Your task to perform on an android device: change the upload size in google photos Image 0: 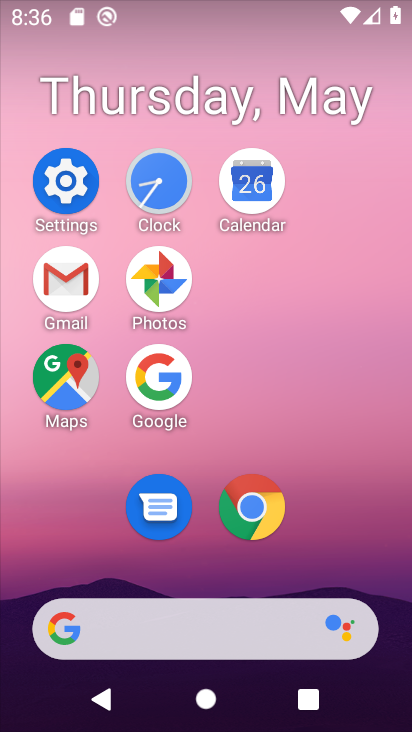
Step 0: click (162, 275)
Your task to perform on an android device: change the upload size in google photos Image 1: 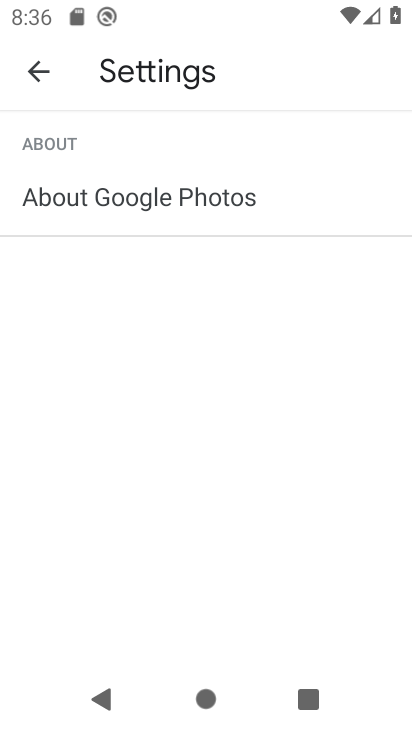
Step 1: click (44, 78)
Your task to perform on an android device: change the upload size in google photos Image 2: 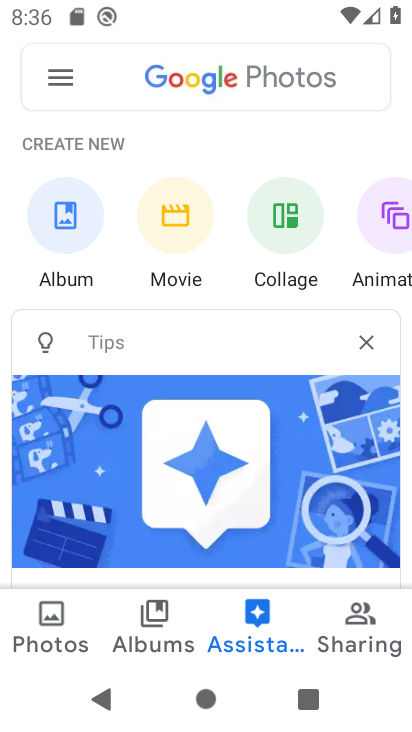
Step 2: click (44, 59)
Your task to perform on an android device: change the upload size in google photos Image 3: 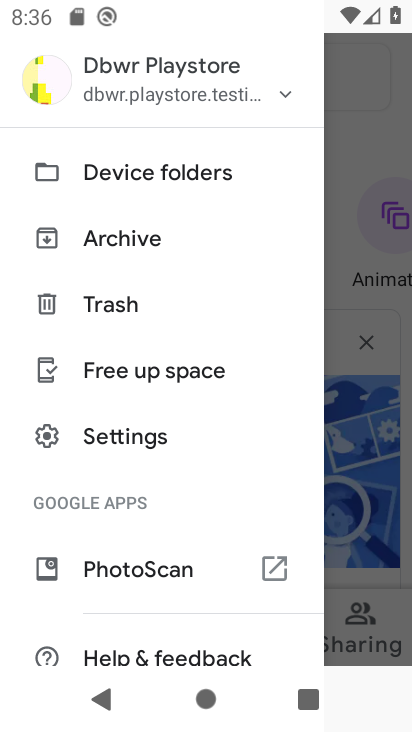
Step 3: click (182, 439)
Your task to perform on an android device: change the upload size in google photos Image 4: 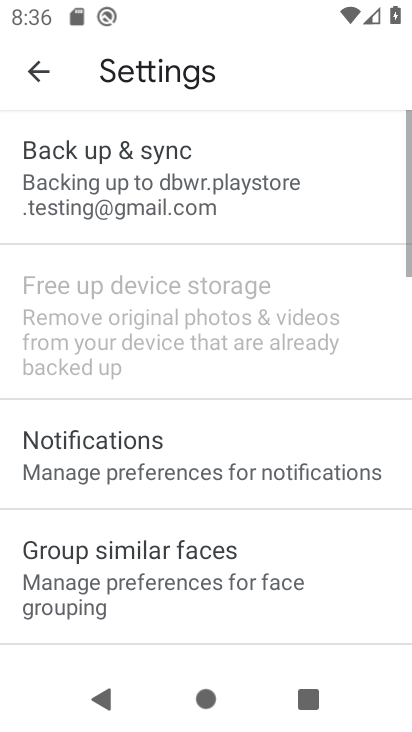
Step 4: click (181, 187)
Your task to perform on an android device: change the upload size in google photos Image 5: 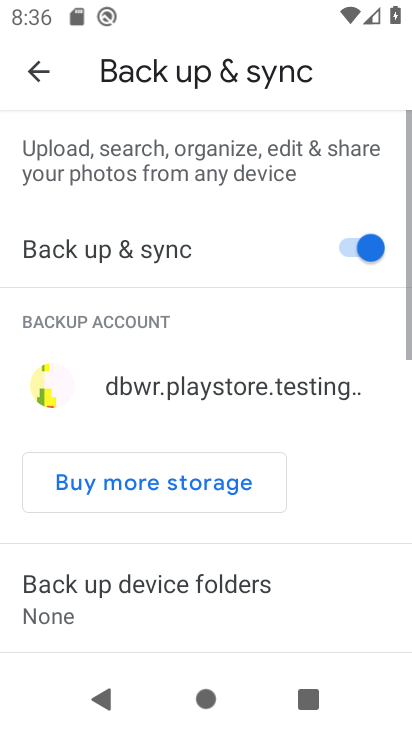
Step 5: drag from (259, 501) to (242, 178)
Your task to perform on an android device: change the upload size in google photos Image 6: 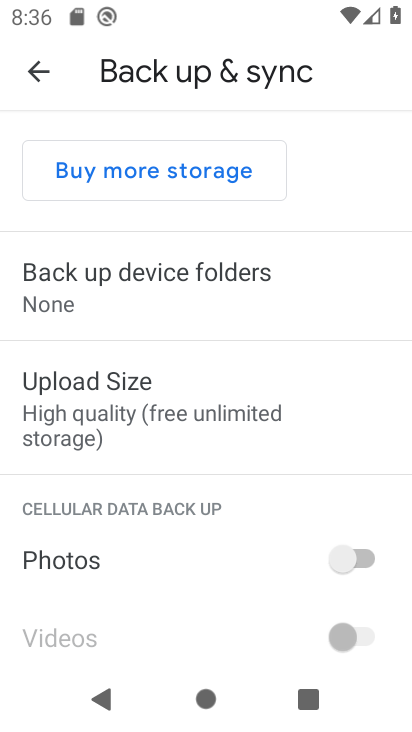
Step 6: click (260, 389)
Your task to perform on an android device: change the upload size in google photos Image 7: 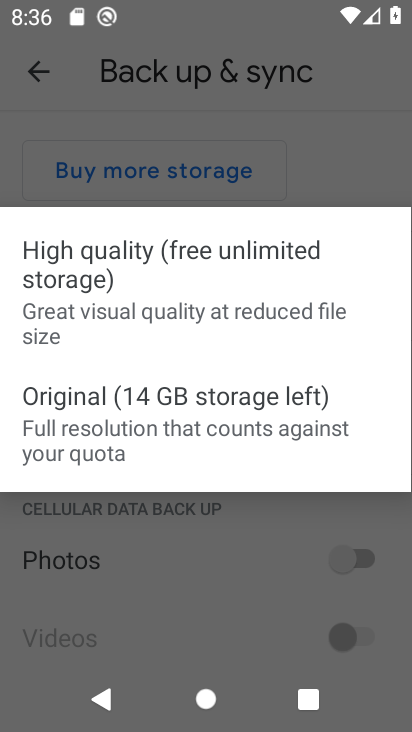
Step 7: click (270, 414)
Your task to perform on an android device: change the upload size in google photos Image 8: 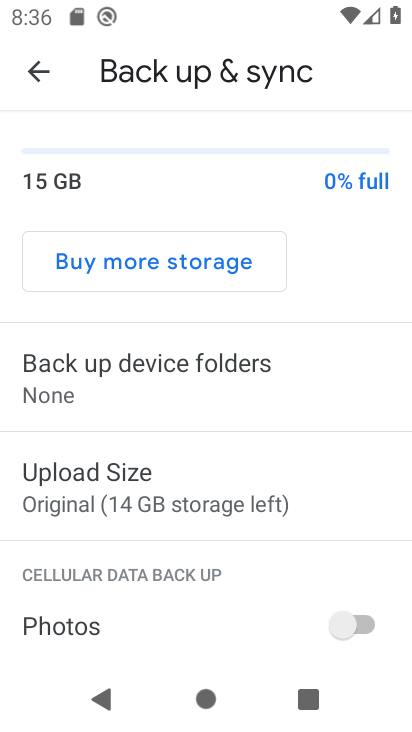
Step 8: task complete